Your task to perform on an android device: Clear all items from cart on walmart.com. Add "bose soundlink" to the cart on walmart.com, then select checkout. Image 0: 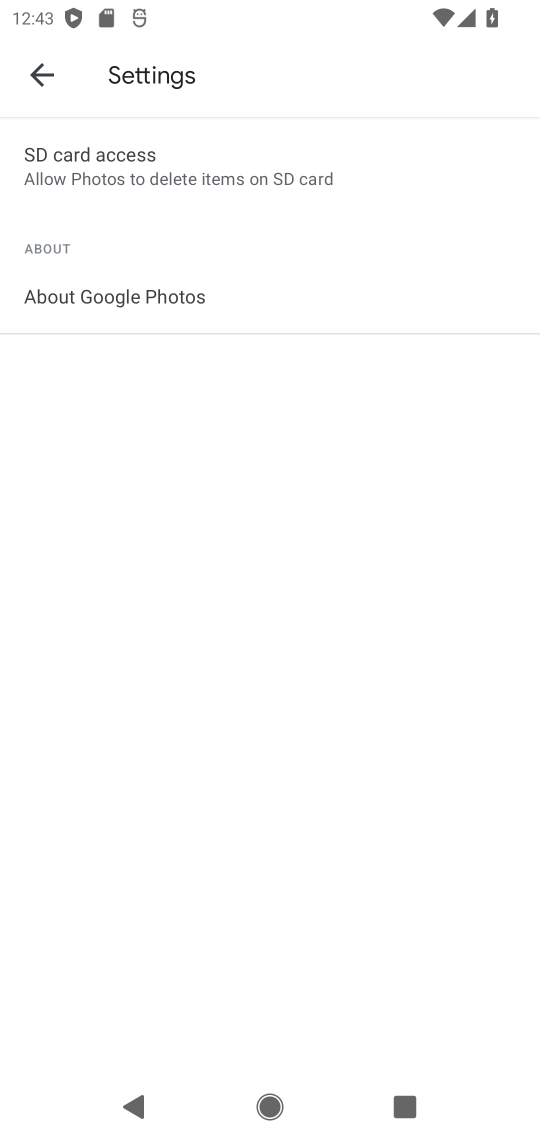
Step 0: press home button
Your task to perform on an android device: Clear all items from cart on walmart.com. Add "bose soundlink" to the cart on walmart.com, then select checkout. Image 1: 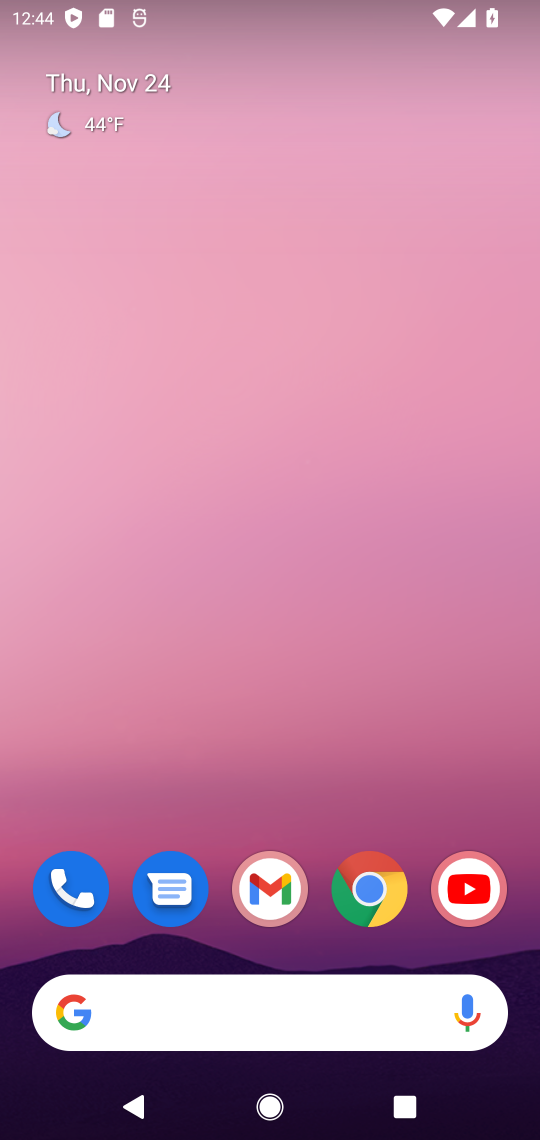
Step 1: click (377, 885)
Your task to perform on an android device: Clear all items from cart on walmart.com. Add "bose soundlink" to the cart on walmart.com, then select checkout. Image 2: 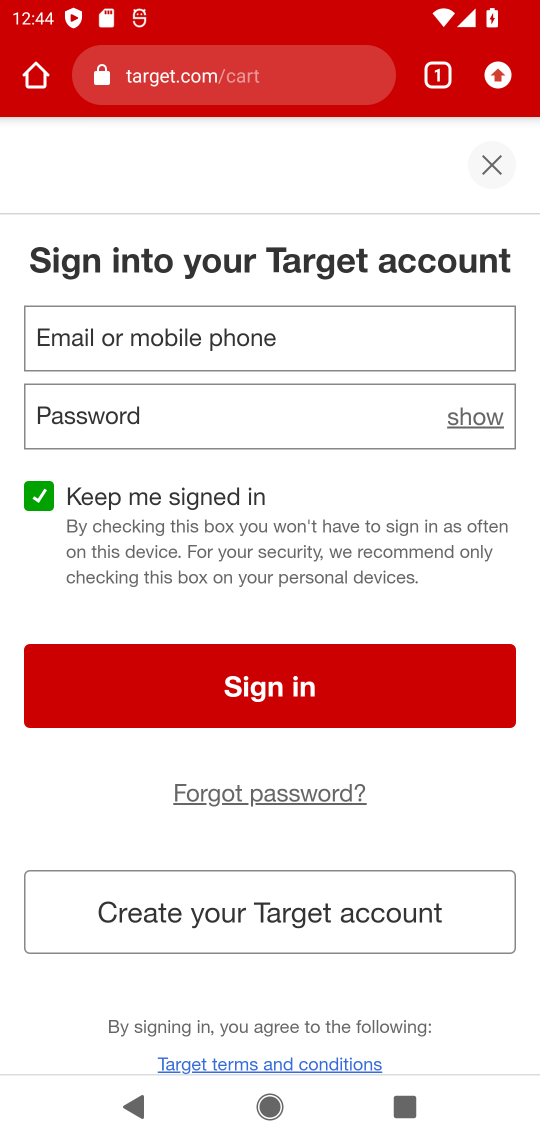
Step 2: click (183, 75)
Your task to perform on an android device: Clear all items from cart on walmart.com. Add "bose soundlink" to the cart on walmart.com, then select checkout. Image 3: 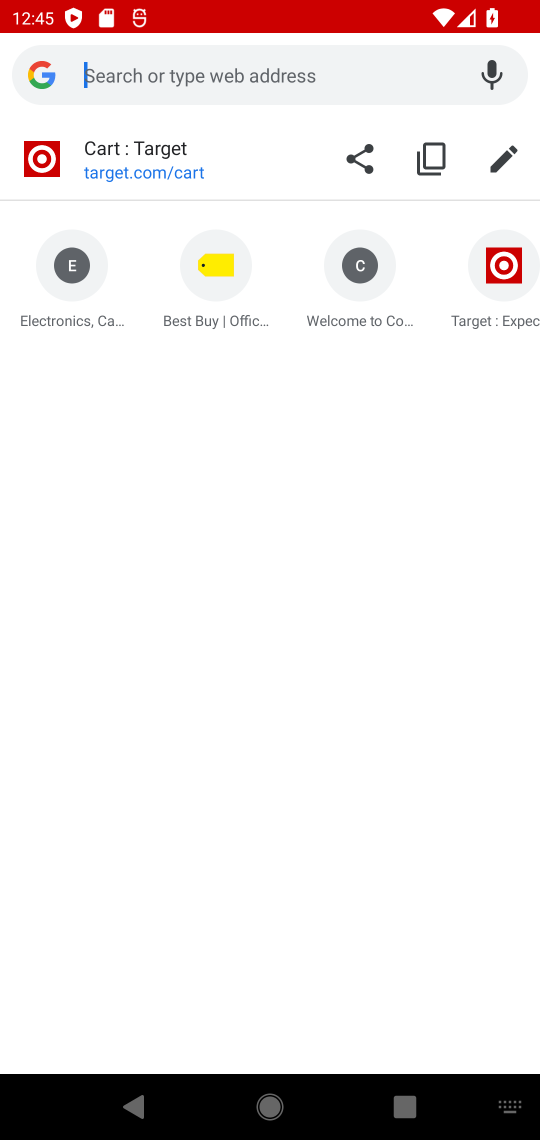
Step 3: type "walmart.com"
Your task to perform on an android device: Clear all items from cart on walmart.com. Add "bose soundlink" to the cart on walmart.com, then select checkout. Image 4: 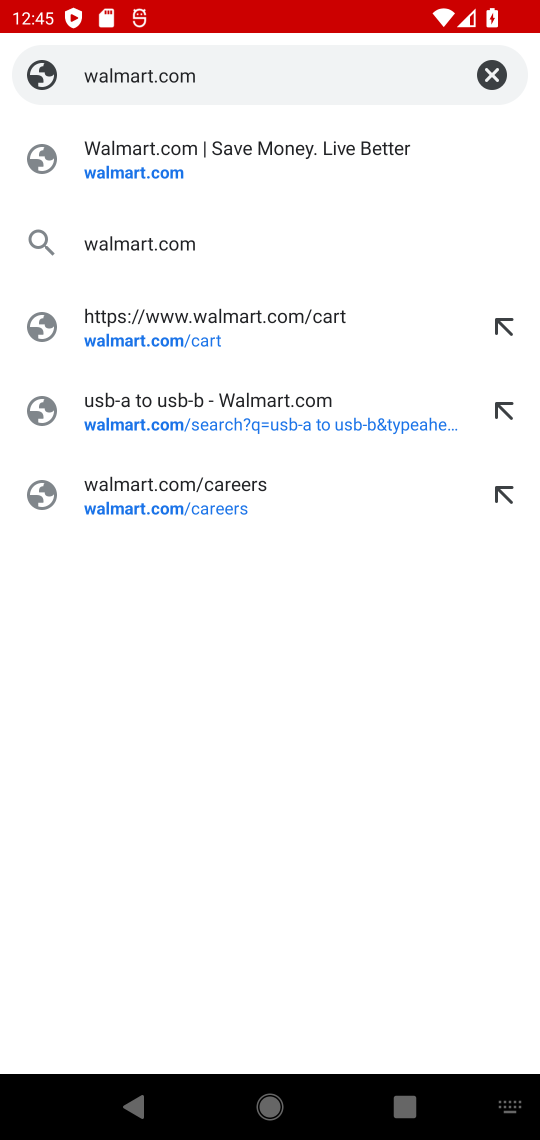
Step 4: click (107, 164)
Your task to perform on an android device: Clear all items from cart on walmart.com. Add "bose soundlink" to the cart on walmart.com, then select checkout. Image 5: 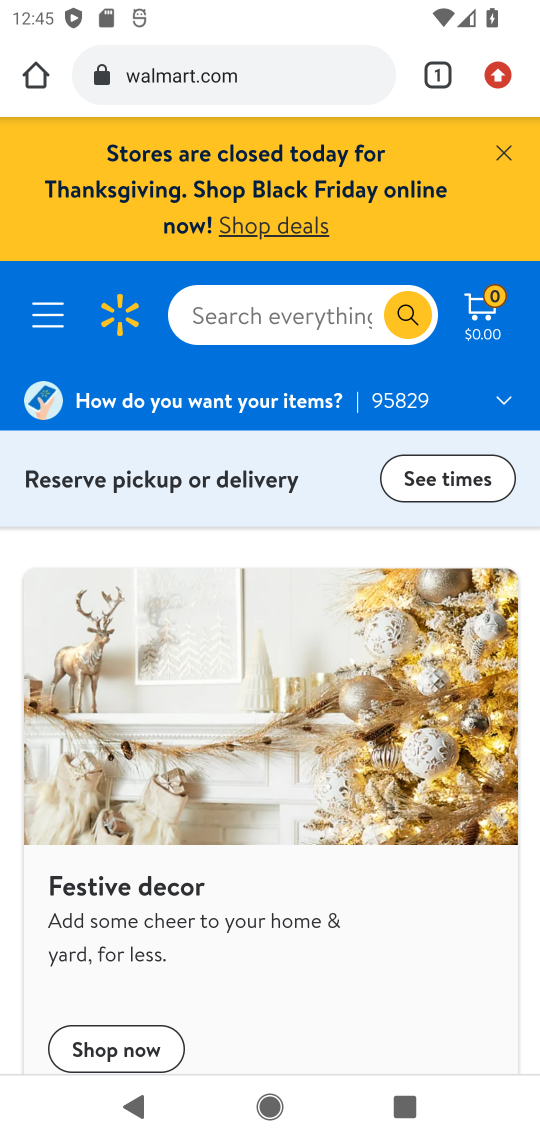
Step 5: click (487, 306)
Your task to perform on an android device: Clear all items from cart on walmart.com. Add "bose soundlink" to the cart on walmart.com, then select checkout. Image 6: 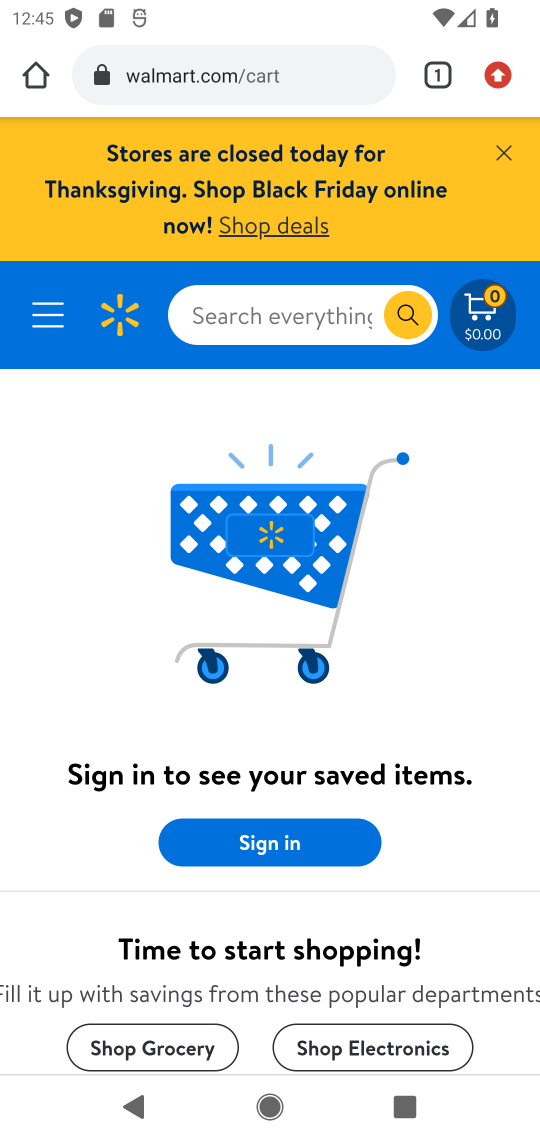
Step 6: click (217, 318)
Your task to perform on an android device: Clear all items from cart on walmart.com. Add "bose soundlink" to the cart on walmart.com, then select checkout. Image 7: 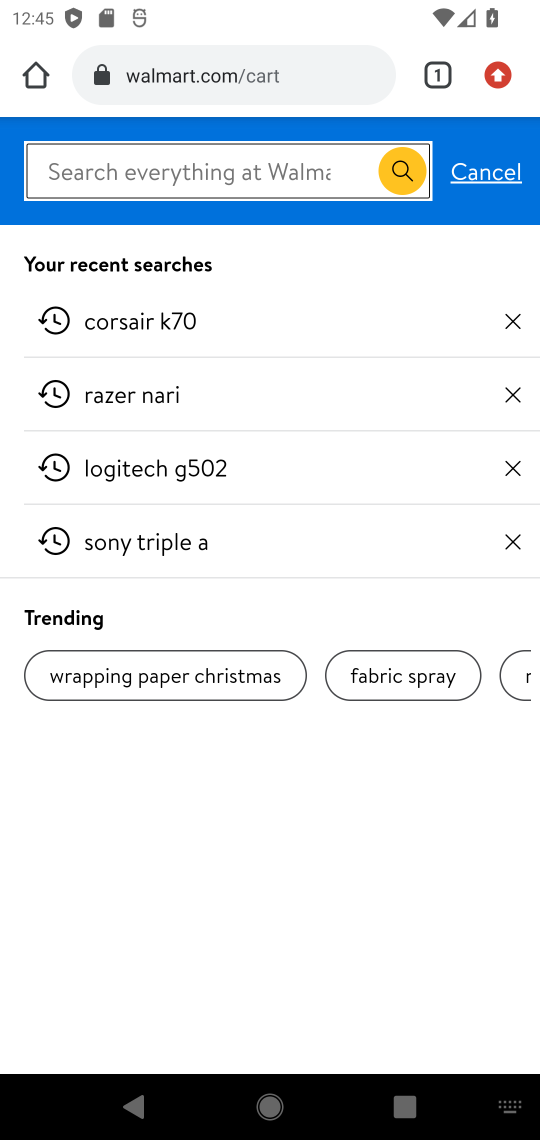
Step 7: type "bose soundlink"
Your task to perform on an android device: Clear all items from cart on walmart.com. Add "bose soundlink" to the cart on walmart.com, then select checkout. Image 8: 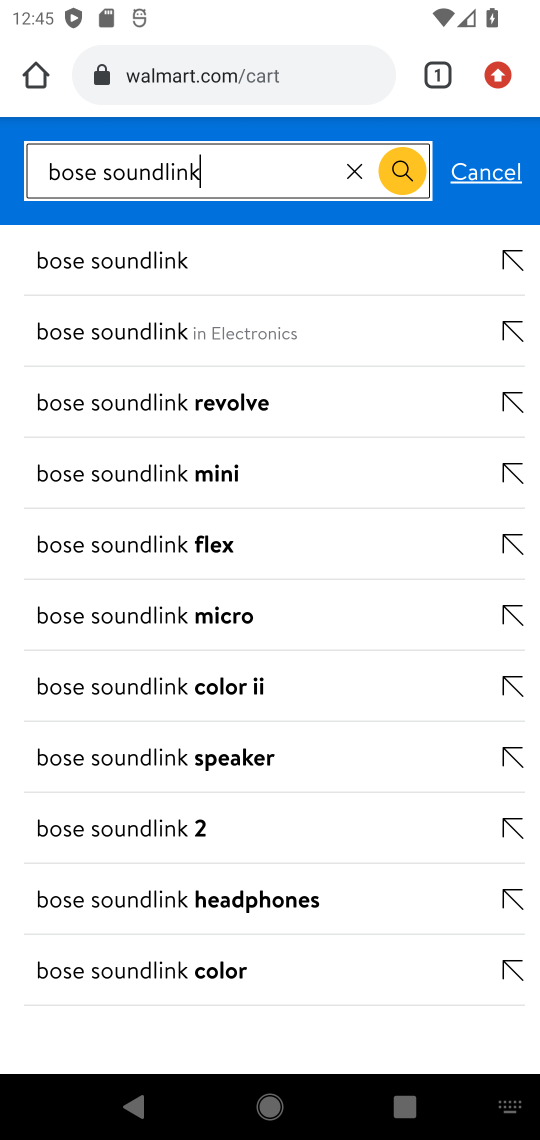
Step 8: click (139, 268)
Your task to perform on an android device: Clear all items from cart on walmart.com. Add "bose soundlink" to the cart on walmart.com, then select checkout. Image 9: 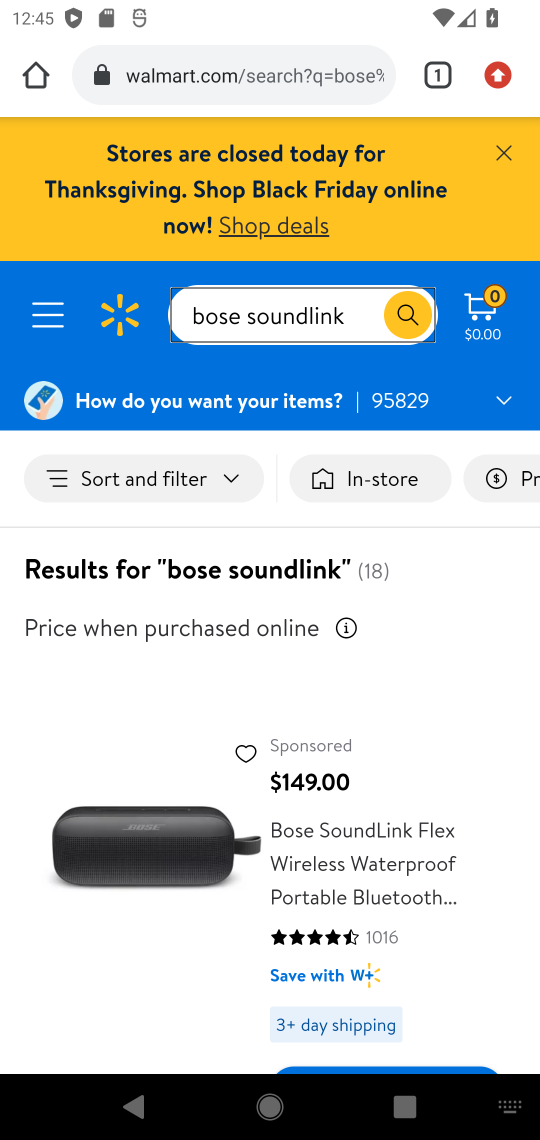
Step 9: drag from (209, 770) to (235, 397)
Your task to perform on an android device: Clear all items from cart on walmart.com. Add "bose soundlink" to the cart on walmart.com, then select checkout. Image 10: 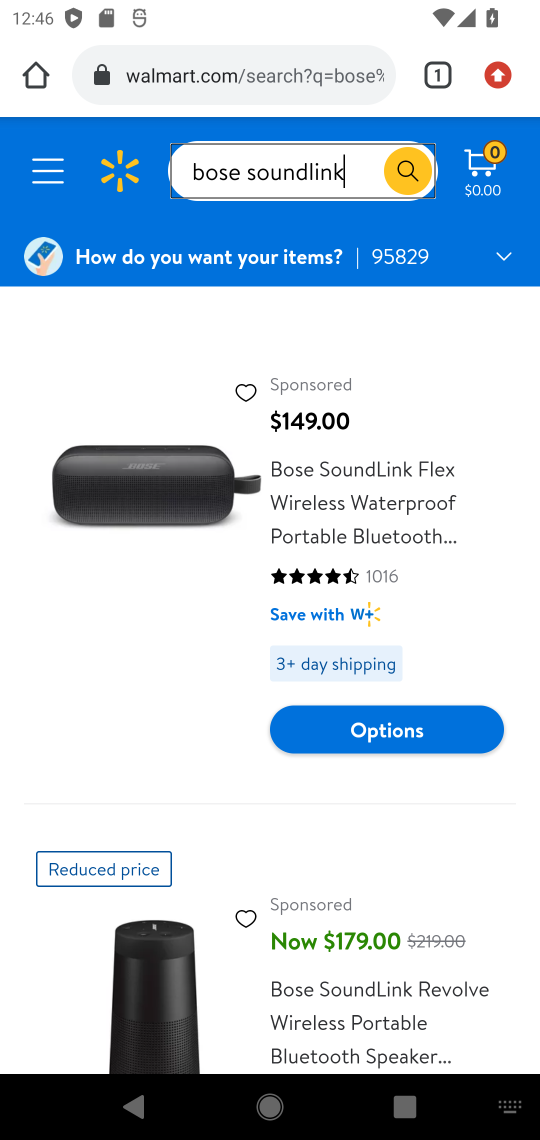
Step 10: click (254, 533)
Your task to perform on an android device: Clear all items from cart on walmart.com. Add "bose soundlink" to the cart on walmart.com, then select checkout. Image 11: 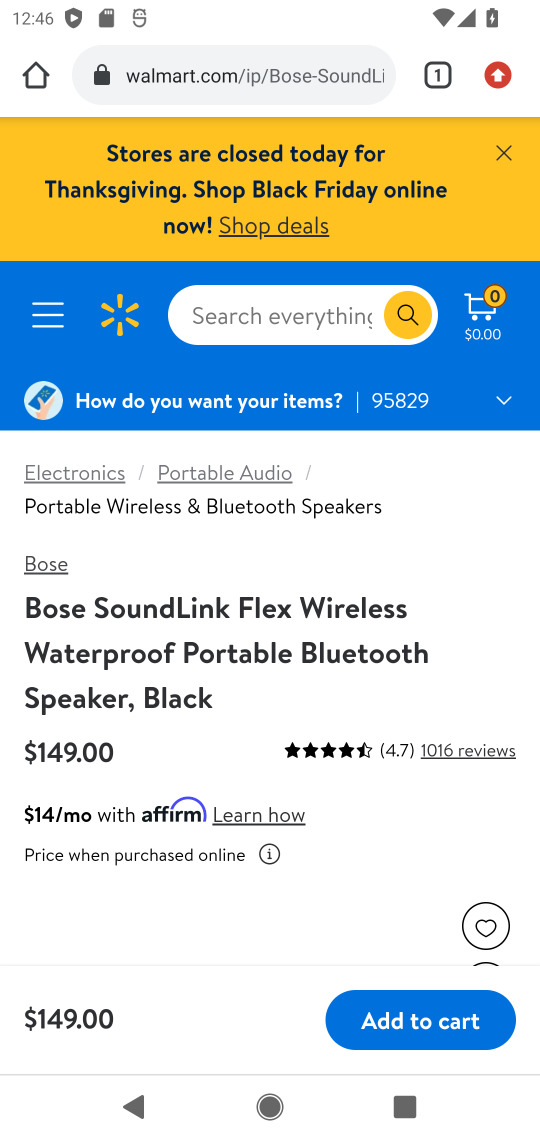
Step 11: click (391, 1019)
Your task to perform on an android device: Clear all items from cart on walmart.com. Add "bose soundlink" to the cart on walmart.com, then select checkout. Image 12: 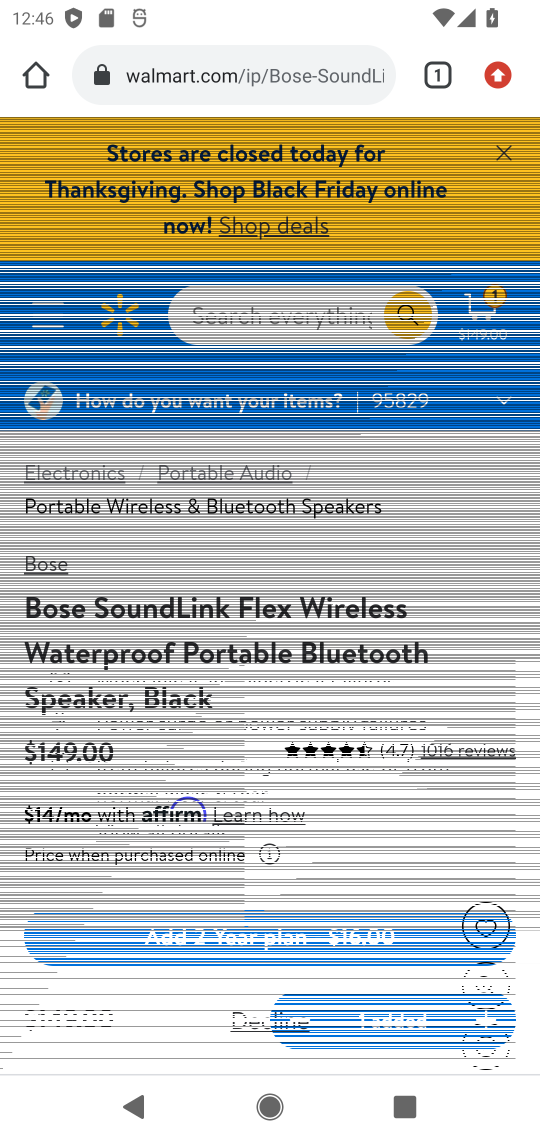
Step 12: drag from (420, 555) to (431, 447)
Your task to perform on an android device: Clear all items from cart on walmart.com. Add "bose soundlink" to the cart on walmart.com, then select checkout. Image 13: 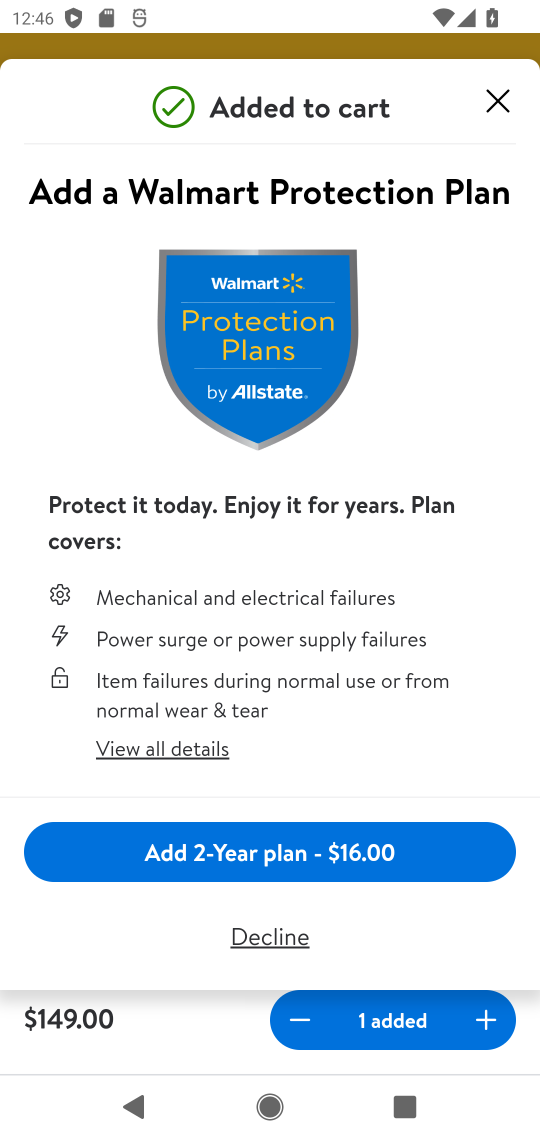
Step 13: click (490, 106)
Your task to perform on an android device: Clear all items from cart on walmart.com. Add "bose soundlink" to the cart on walmart.com, then select checkout. Image 14: 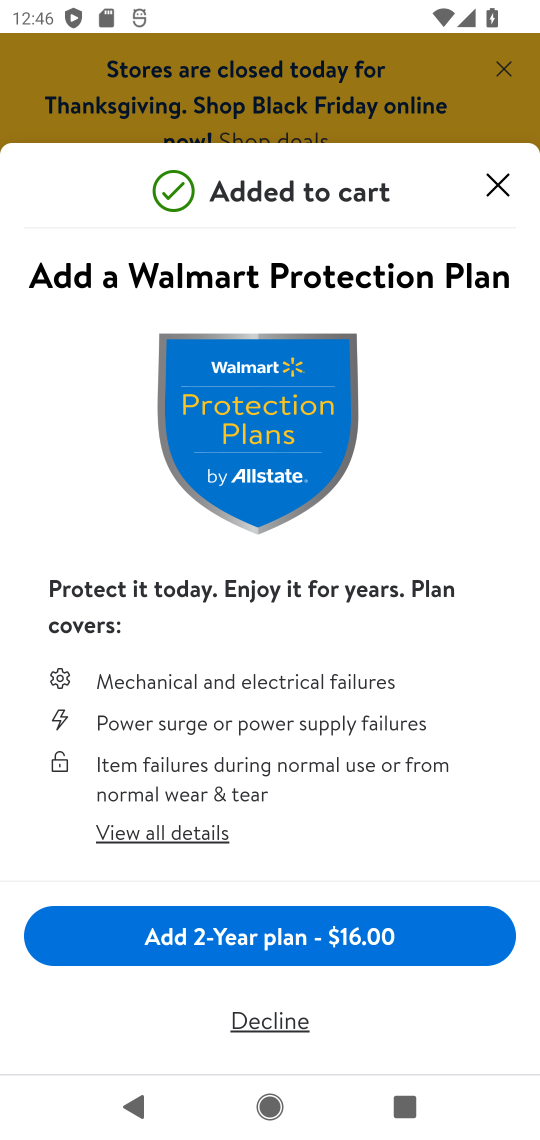
Step 14: click (494, 193)
Your task to perform on an android device: Clear all items from cart on walmart.com. Add "bose soundlink" to the cart on walmart.com, then select checkout. Image 15: 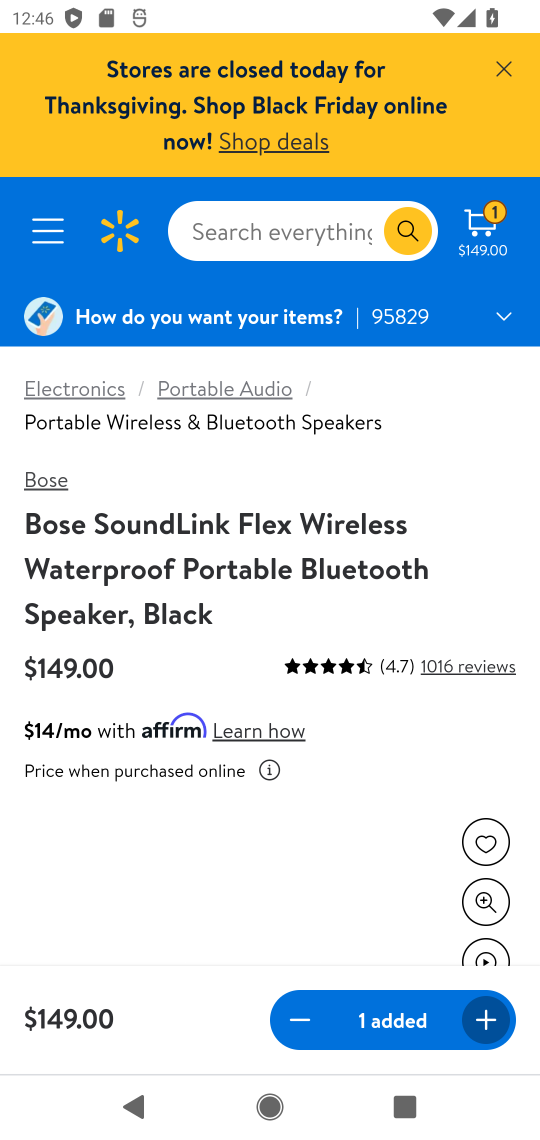
Step 15: click (481, 233)
Your task to perform on an android device: Clear all items from cart on walmart.com. Add "bose soundlink" to the cart on walmart.com, then select checkout. Image 16: 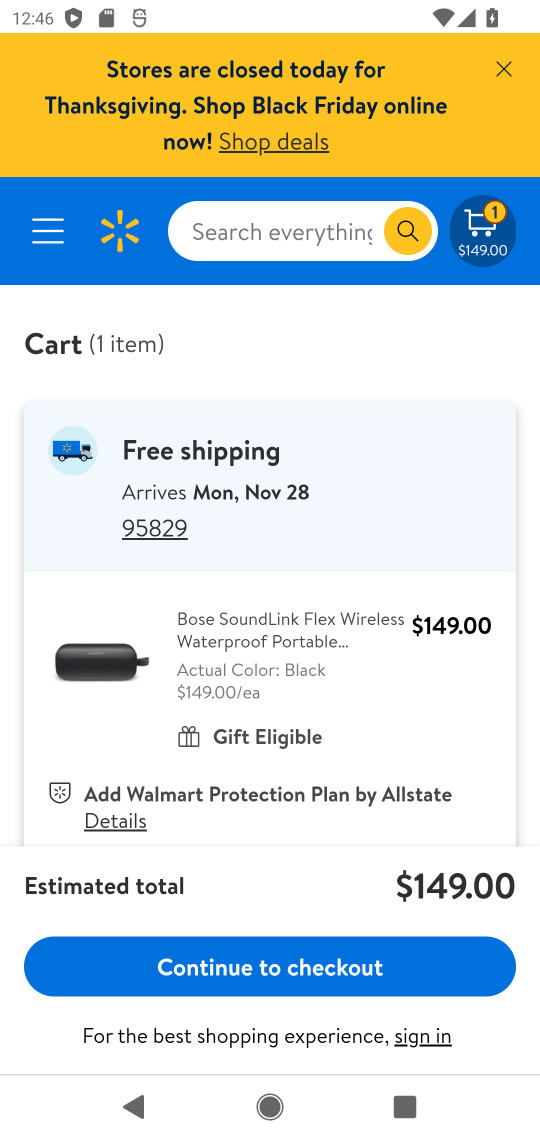
Step 16: click (257, 965)
Your task to perform on an android device: Clear all items from cart on walmart.com. Add "bose soundlink" to the cart on walmart.com, then select checkout. Image 17: 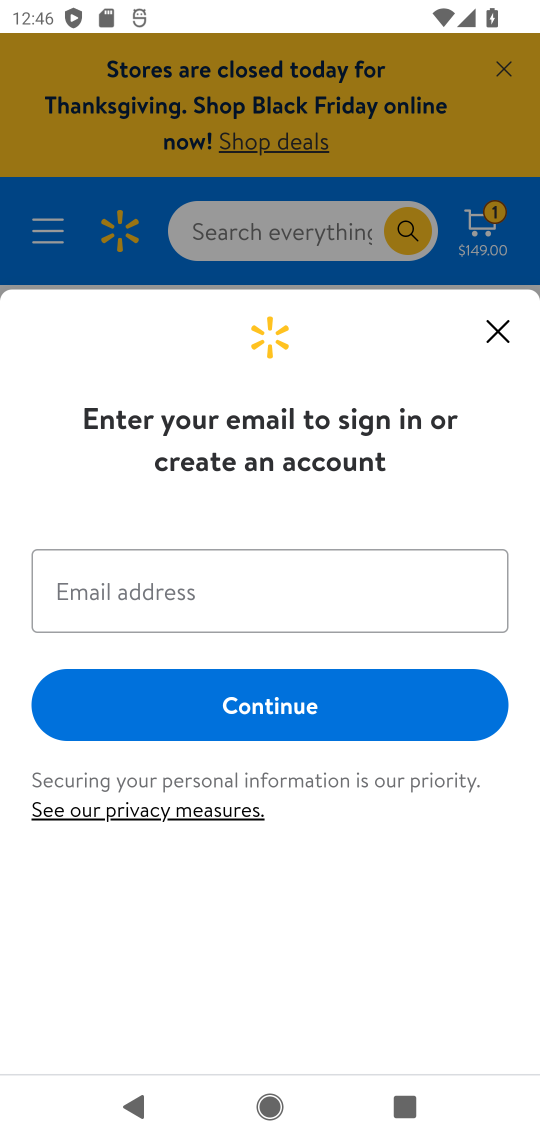
Step 17: task complete